Your task to perform on an android device: turn smart compose on in the gmail app Image 0: 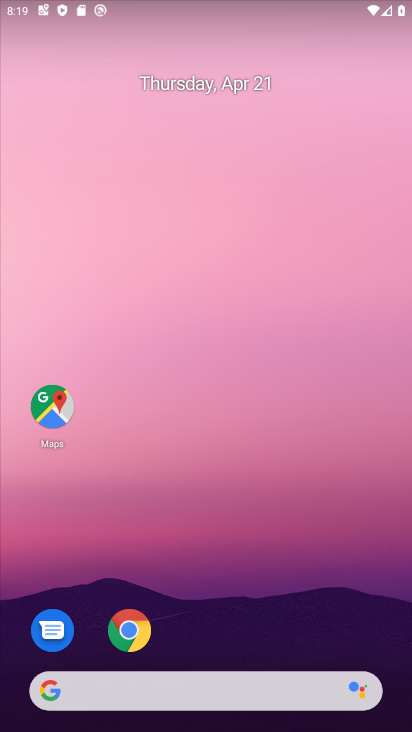
Step 0: drag from (201, 617) to (333, 76)
Your task to perform on an android device: turn smart compose on in the gmail app Image 1: 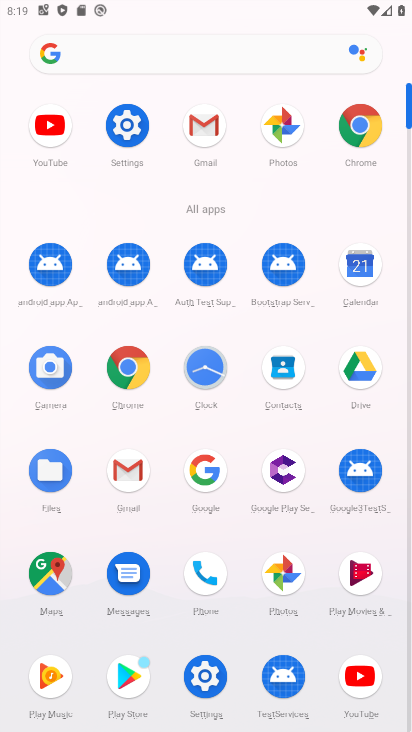
Step 1: click (126, 480)
Your task to perform on an android device: turn smart compose on in the gmail app Image 2: 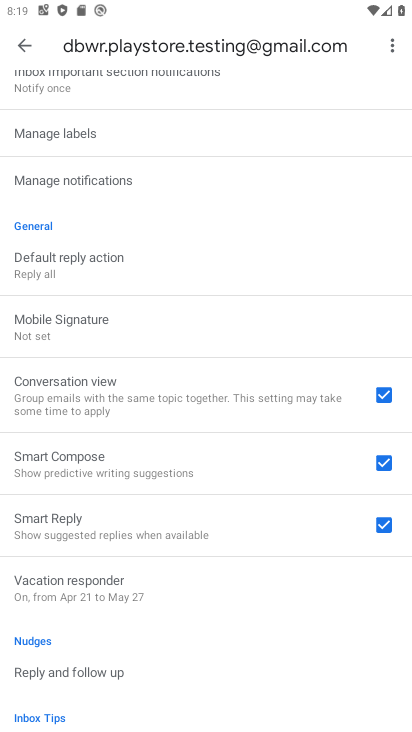
Step 2: task complete